Your task to perform on an android device: turn on translation in the chrome app Image 0: 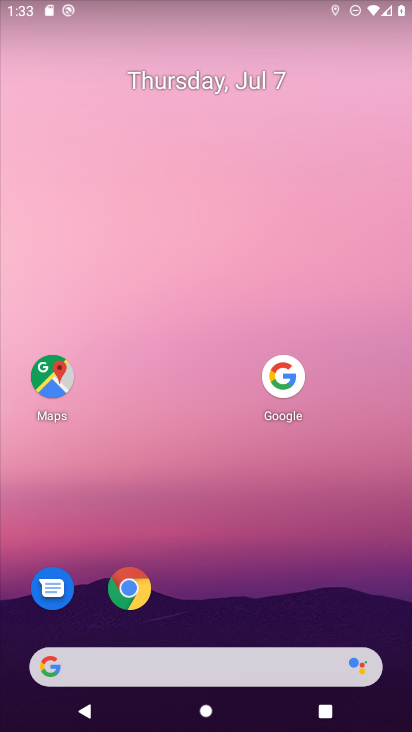
Step 0: drag from (176, 671) to (397, 171)
Your task to perform on an android device: turn on translation in the chrome app Image 1: 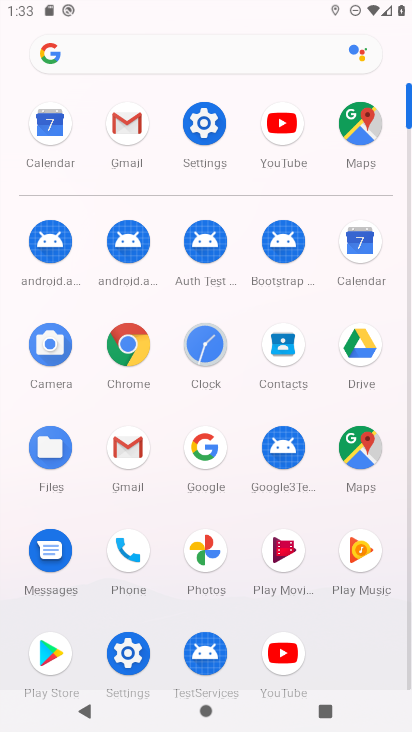
Step 1: click (142, 347)
Your task to perform on an android device: turn on translation in the chrome app Image 2: 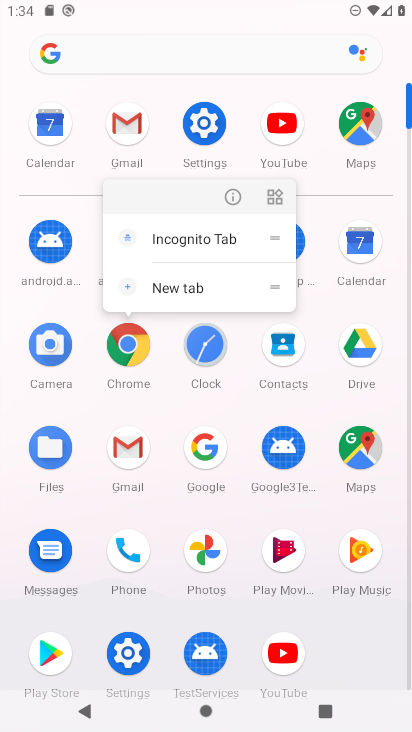
Step 2: click (137, 345)
Your task to perform on an android device: turn on translation in the chrome app Image 3: 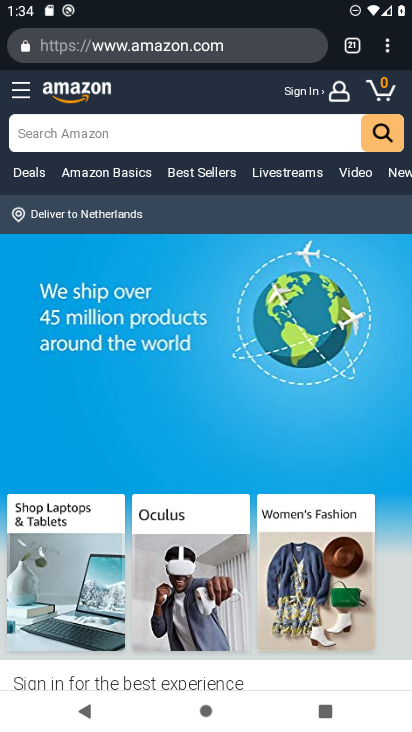
Step 3: drag from (391, 49) to (245, 548)
Your task to perform on an android device: turn on translation in the chrome app Image 4: 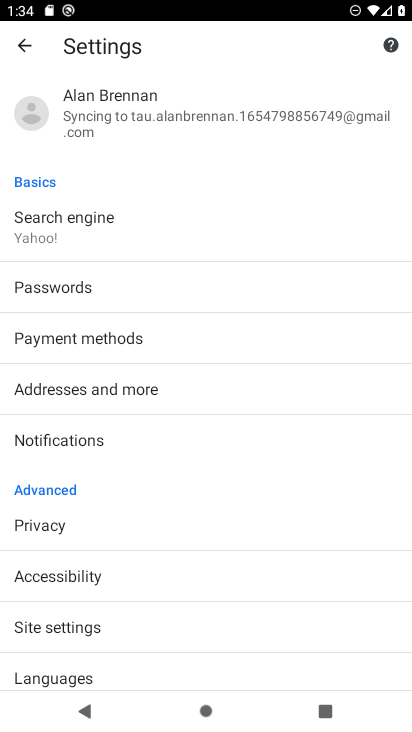
Step 4: drag from (129, 627) to (302, 261)
Your task to perform on an android device: turn on translation in the chrome app Image 5: 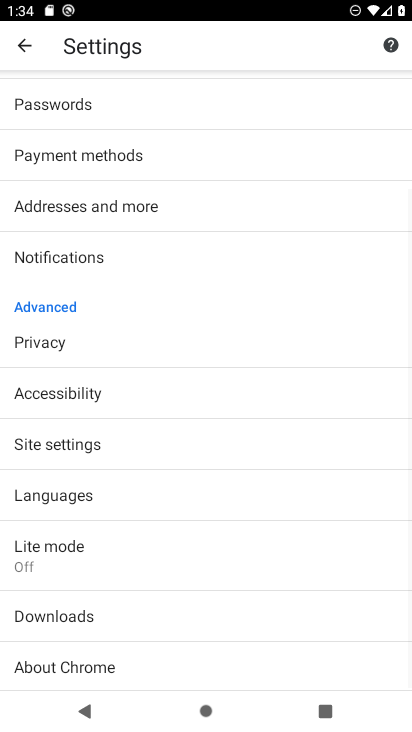
Step 5: click (56, 488)
Your task to perform on an android device: turn on translation in the chrome app Image 6: 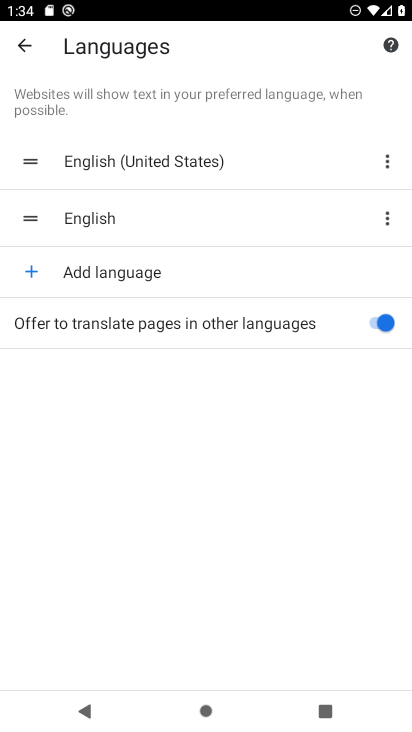
Step 6: task complete